Your task to perform on an android device: uninstall "File Manager" Image 0: 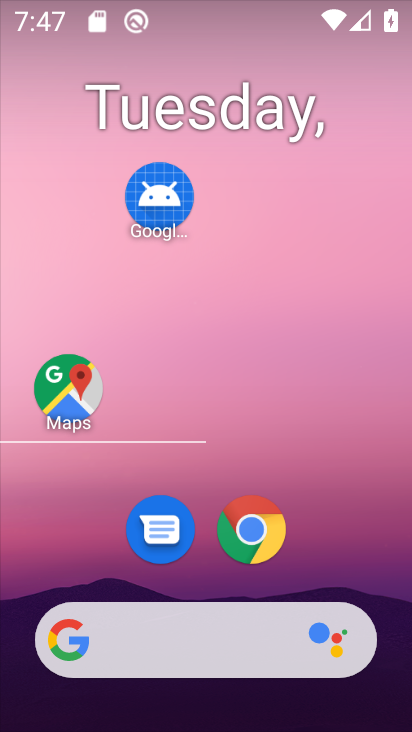
Step 0: press home button
Your task to perform on an android device: uninstall "File Manager" Image 1: 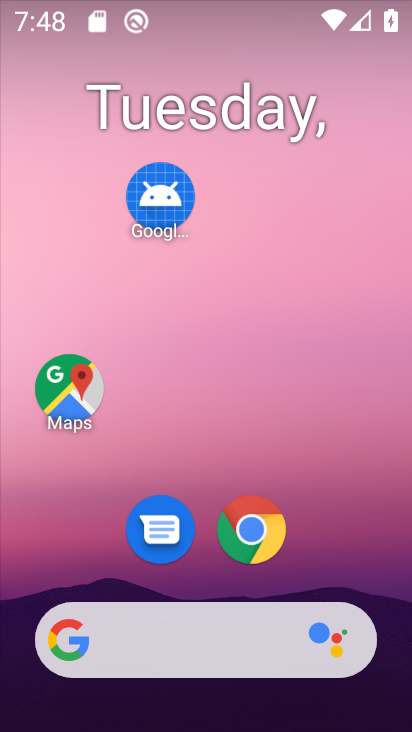
Step 1: drag from (329, 567) to (285, 149)
Your task to perform on an android device: uninstall "File Manager" Image 2: 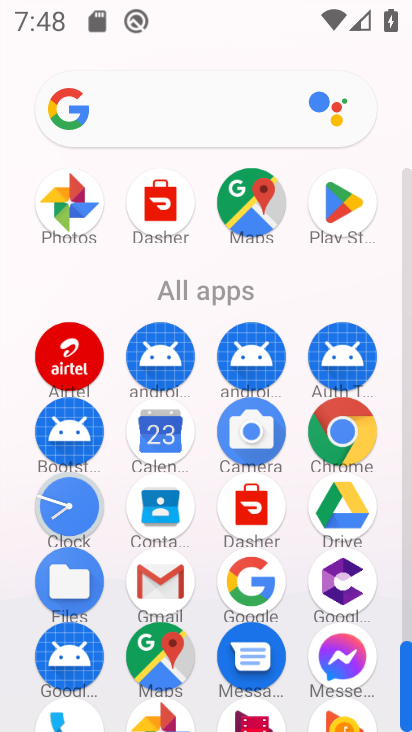
Step 2: click (336, 198)
Your task to perform on an android device: uninstall "File Manager" Image 3: 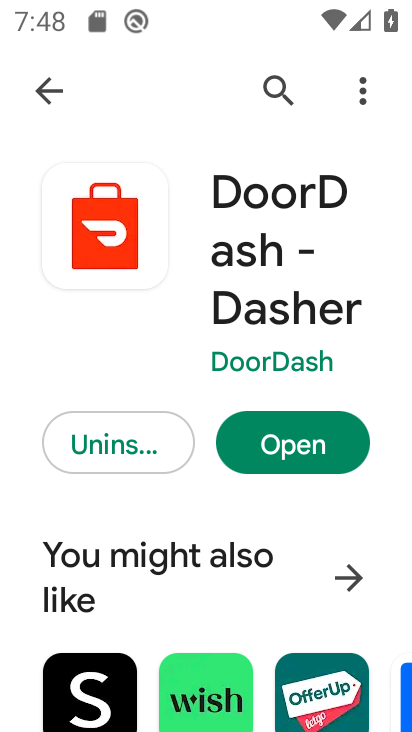
Step 3: click (251, 89)
Your task to perform on an android device: uninstall "File Manager" Image 4: 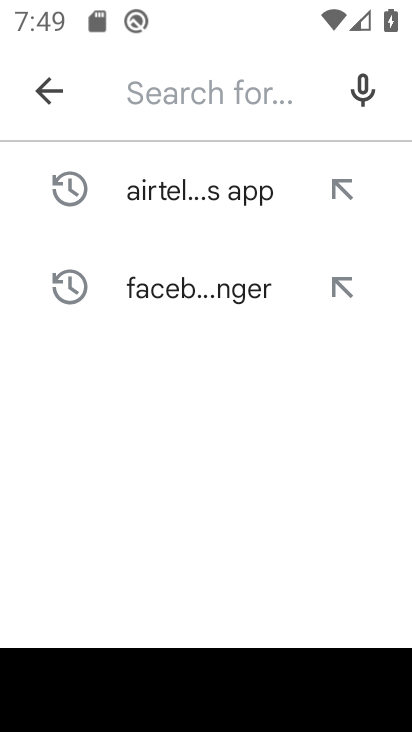
Step 4: type "File Manager"
Your task to perform on an android device: uninstall "File Manager" Image 5: 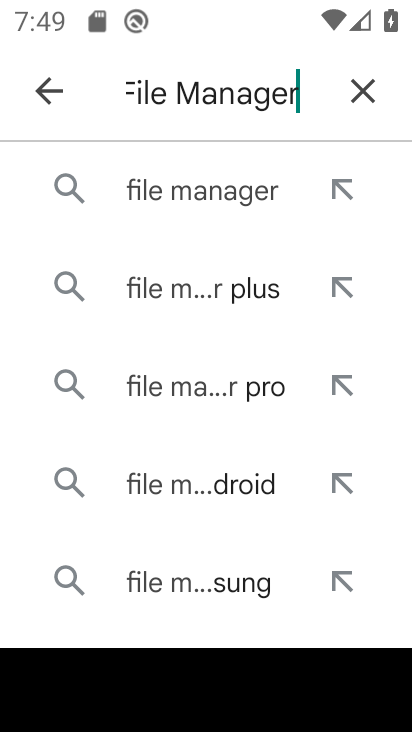
Step 5: click (274, 191)
Your task to perform on an android device: uninstall "File Manager" Image 6: 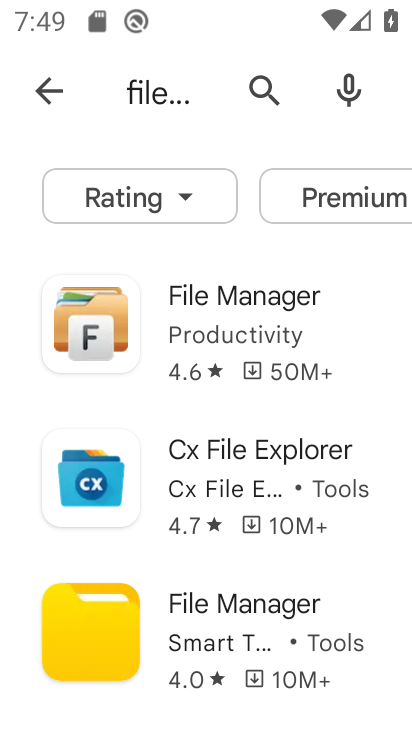
Step 6: task complete